Your task to perform on an android device: read, delete, or share a saved page in the chrome app Image 0: 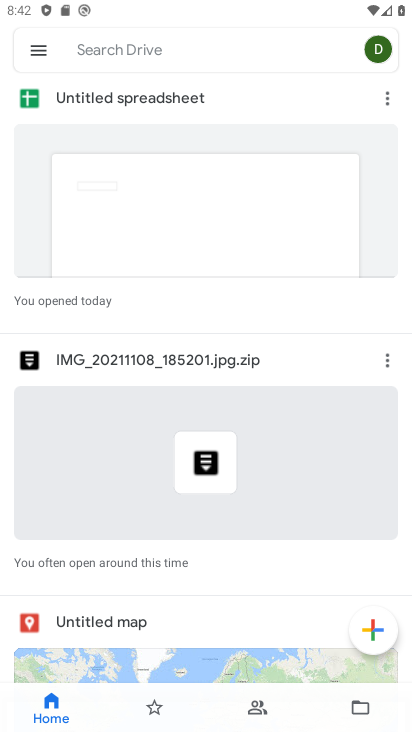
Step 0: press home button
Your task to perform on an android device: read, delete, or share a saved page in the chrome app Image 1: 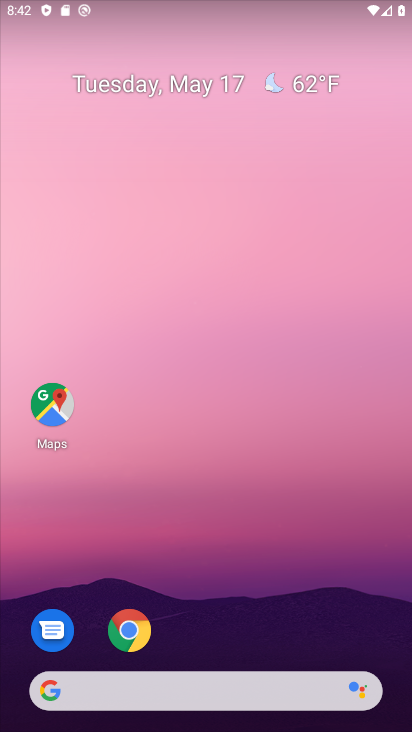
Step 1: click (123, 652)
Your task to perform on an android device: read, delete, or share a saved page in the chrome app Image 2: 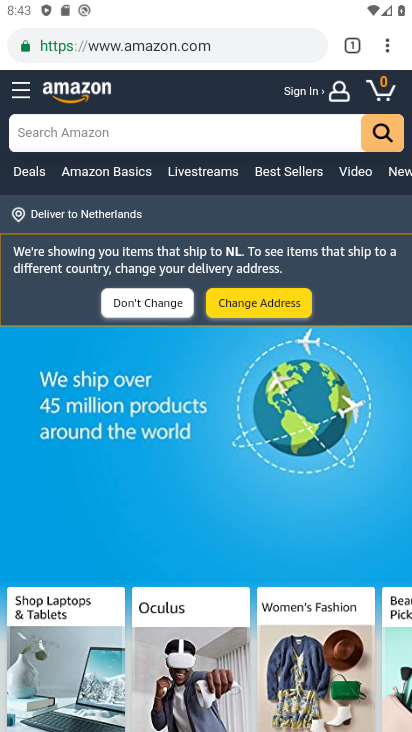
Step 2: click (385, 46)
Your task to perform on an android device: read, delete, or share a saved page in the chrome app Image 3: 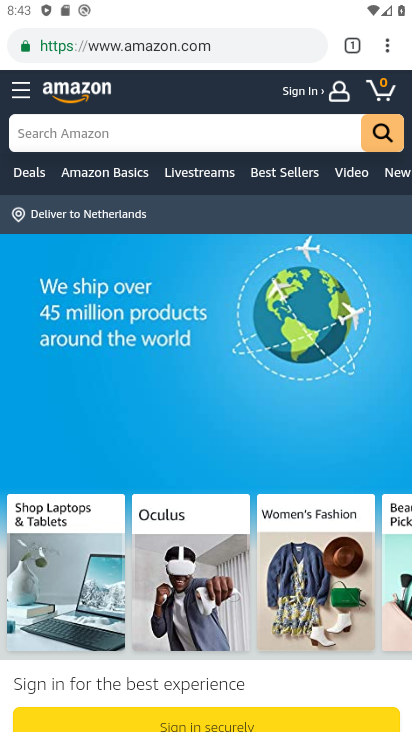
Step 3: click (385, 45)
Your task to perform on an android device: read, delete, or share a saved page in the chrome app Image 4: 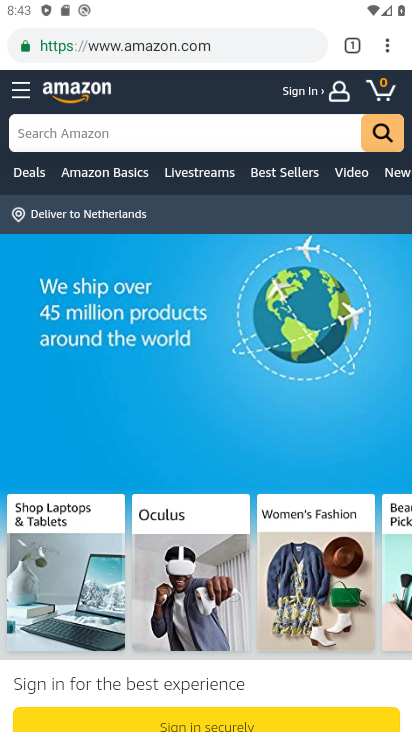
Step 4: click (387, 42)
Your task to perform on an android device: read, delete, or share a saved page in the chrome app Image 5: 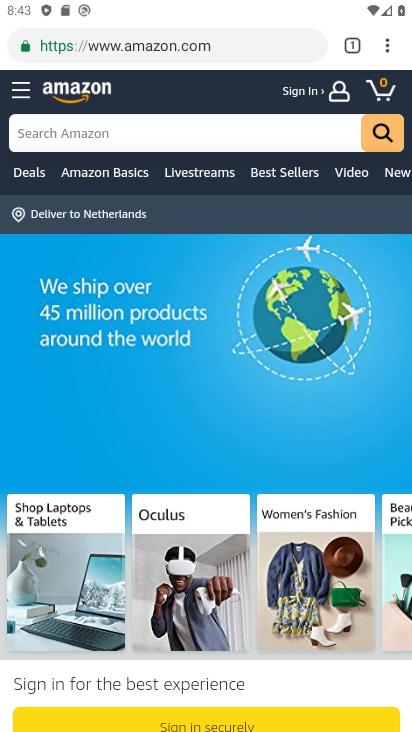
Step 5: click (387, 43)
Your task to perform on an android device: read, delete, or share a saved page in the chrome app Image 6: 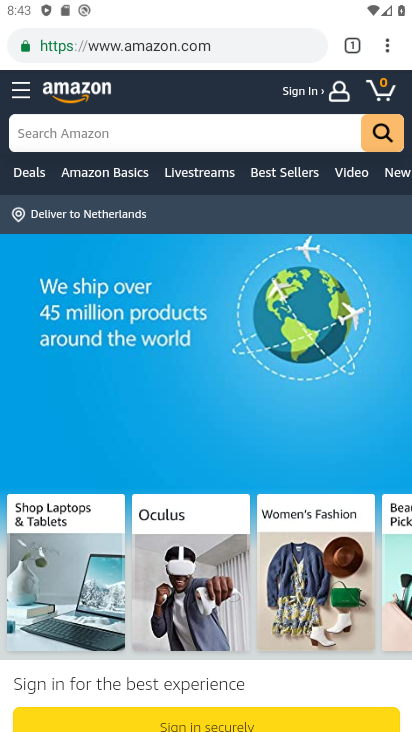
Step 6: click (390, 52)
Your task to perform on an android device: read, delete, or share a saved page in the chrome app Image 7: 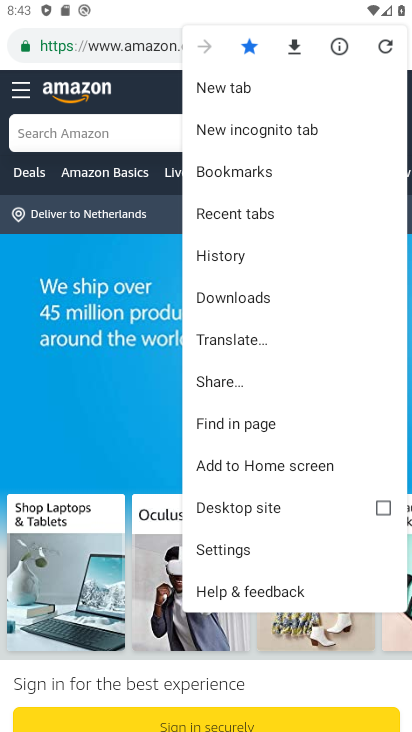
Step 7: task complete